Your task to perform on an android device: Add "logitech g pro" to the cart on amazon, then select checkout. Image 0: 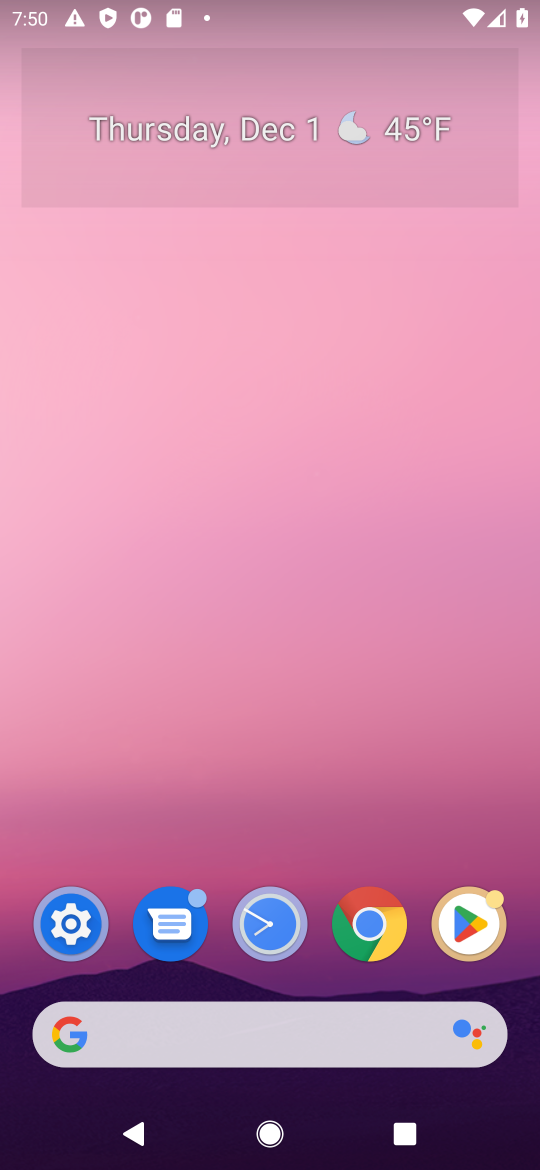
Step 0: click (184, 1041)
Your task to perform on an android device: Add "logitech g pro" to the cart on amazon, then select checkout. Image 1: 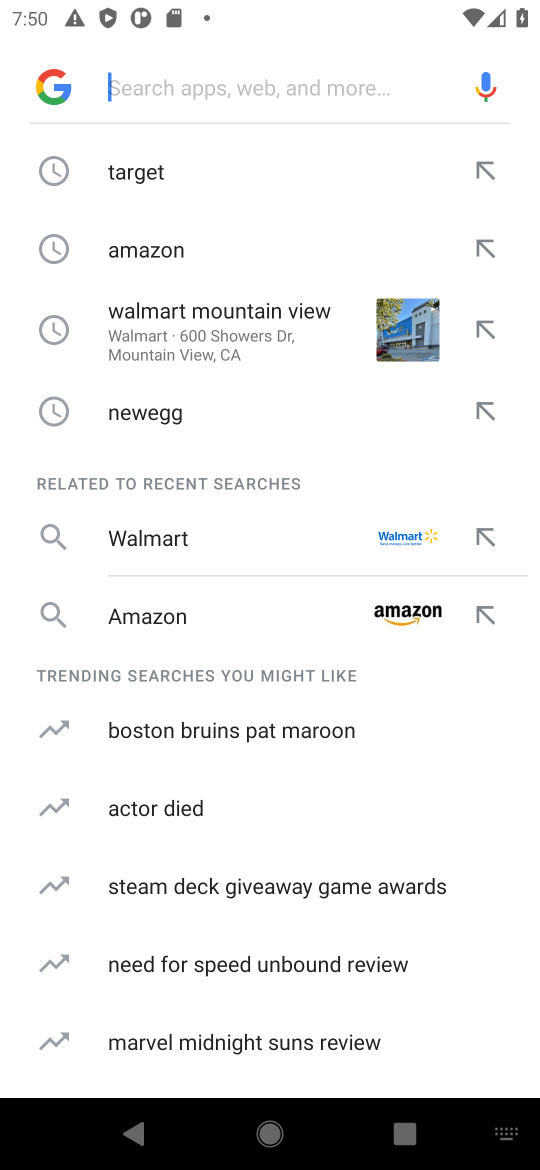
Step 1: type "amazon"
Your task to perform on an android device: Add "logitech g pro" to the cart on amazon, then select checkout. Image 2: 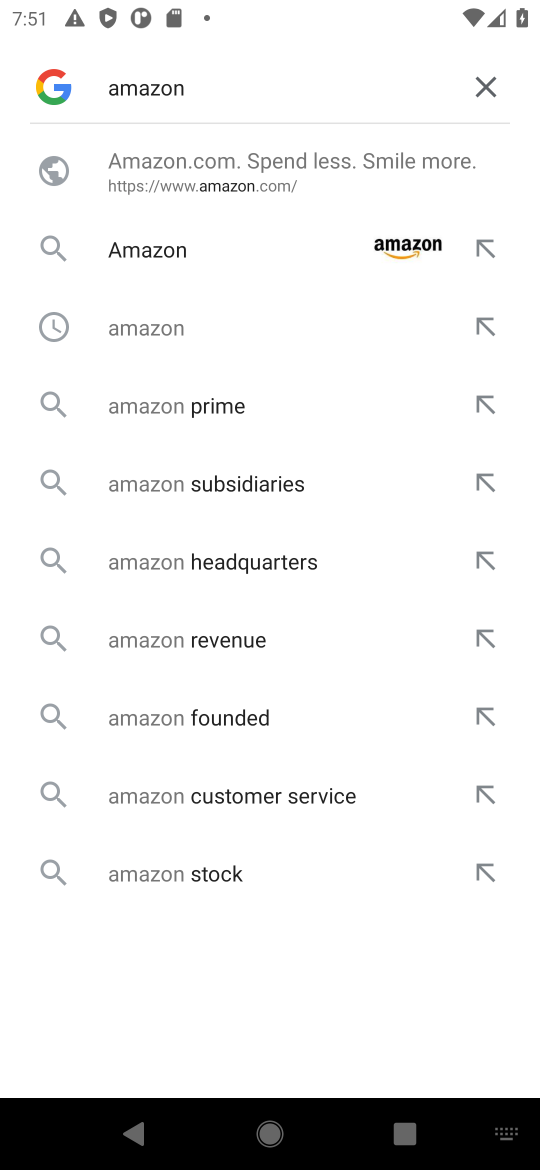
Step 2: click (314, 182)
Your task to perform on an android device: Add "logitech g pro" to the cart on amazon, then select checkout. Image 3: 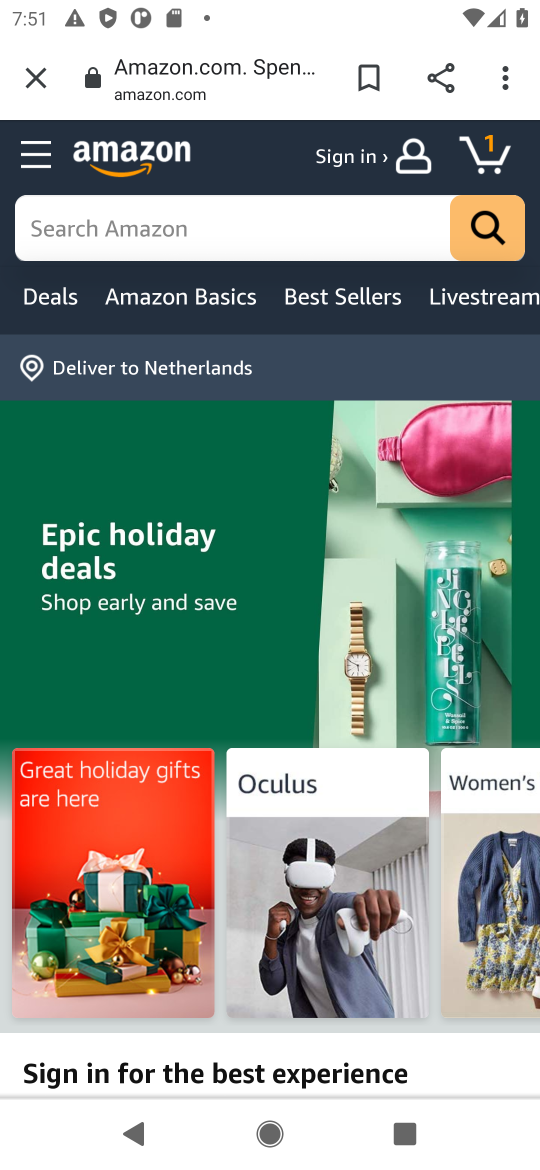
Step 3: click (336, 211)
Your task to perform on an android device: Add "logitech g pro" to the cart on amazon, then select checkout. Image 4: 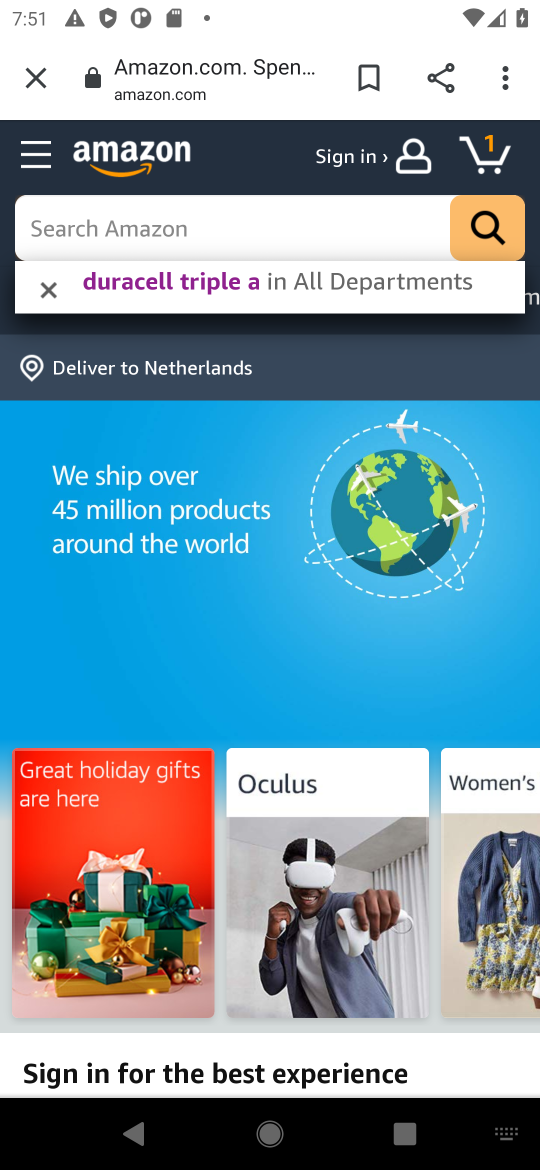
Step 4: type "logitech g pro"
Your task to perform on an android device: Add "logitech g pro" to the cart on amazon, then select checkout. Image 5: 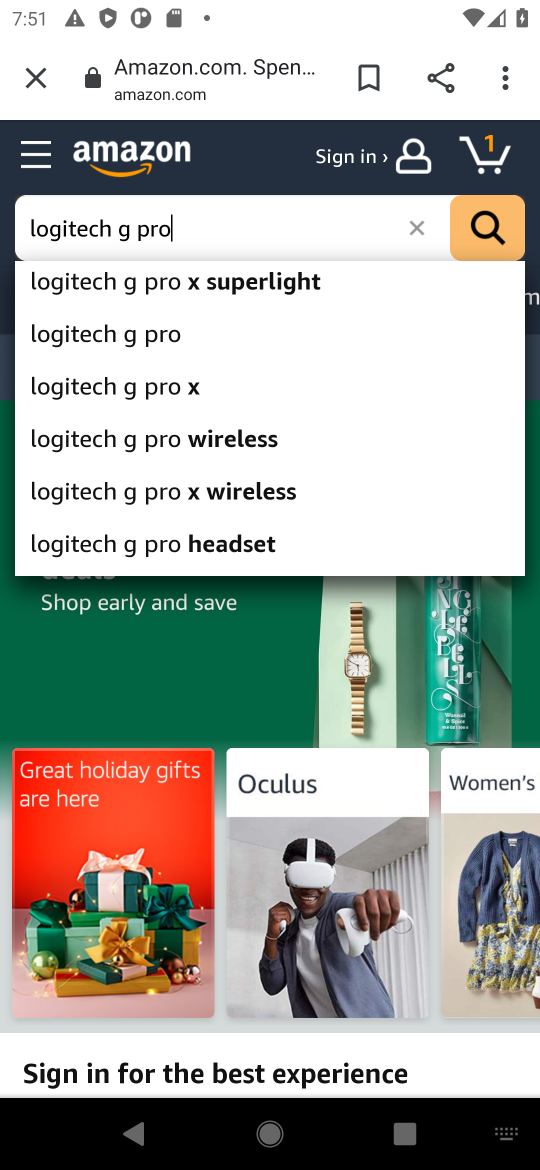
Step 5: click (131, 354)
Your task to perform on an android device: Add "logitech g pro" to the cart on amazon, then select checkout. Image 6: 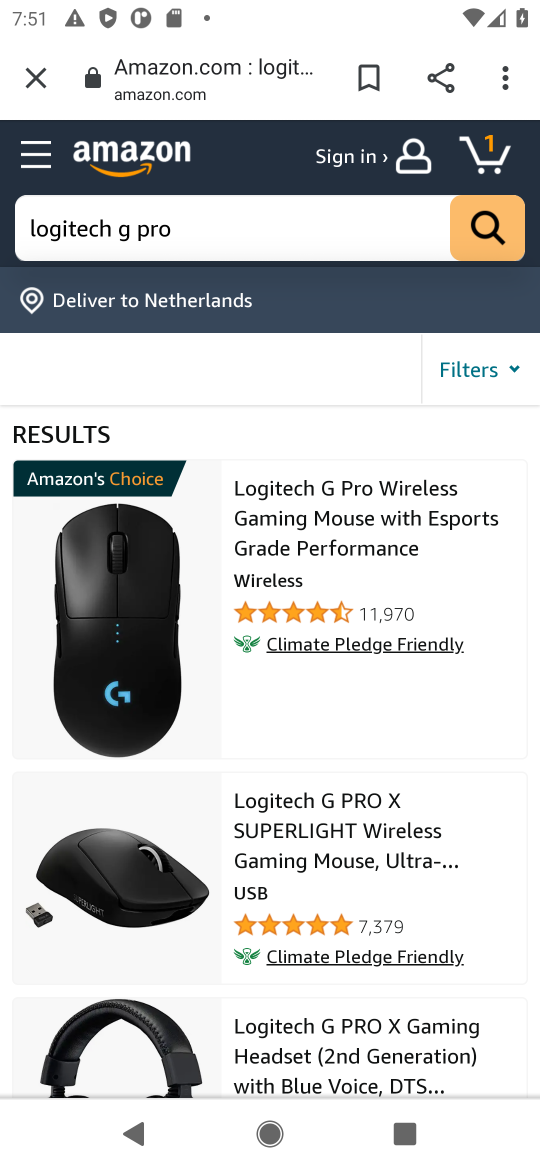
Step 6: click (310, 554)
Your task to perform on an android device: Add "logitech g pro" to the cart on amazon, then select checkout. Image 7: 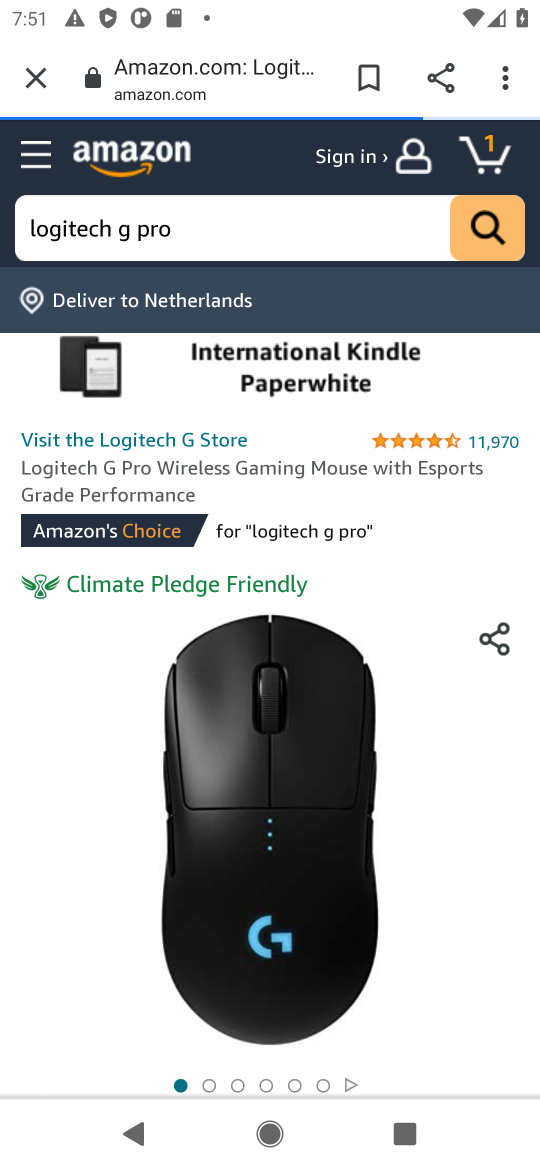
Step 7: drag from (288, 994) to (370, 326)
Your task to perform on an android device: Add "logitech g pro" to the cart on amazon, then select checkout. Image 8: 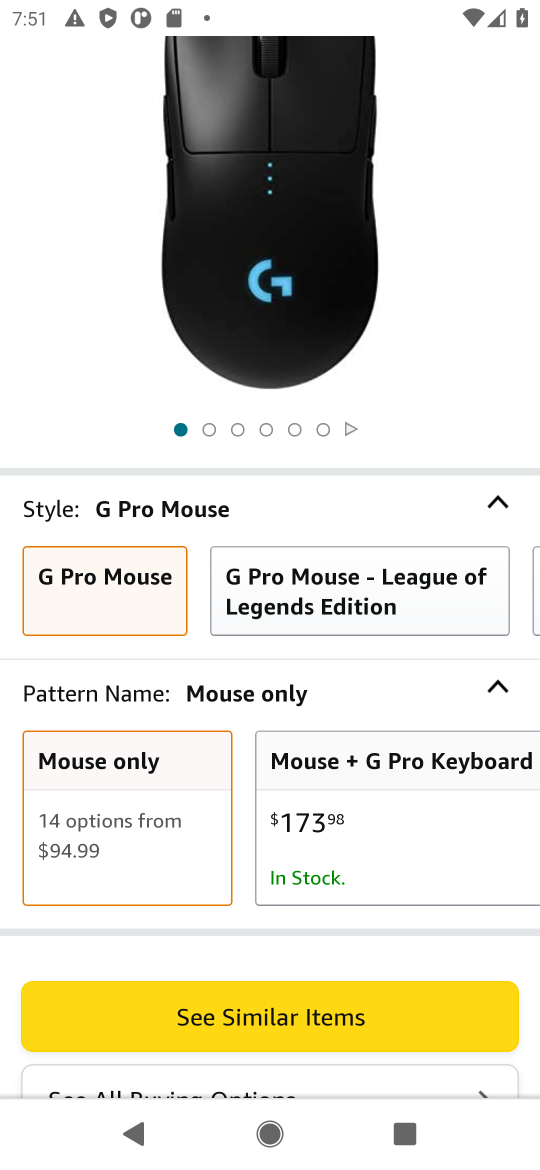
Step 8: click (221, 1021)
Your task to perform on an android device: Add "logitech g pro" to the cart on amazon, then select checkout. Image 9: 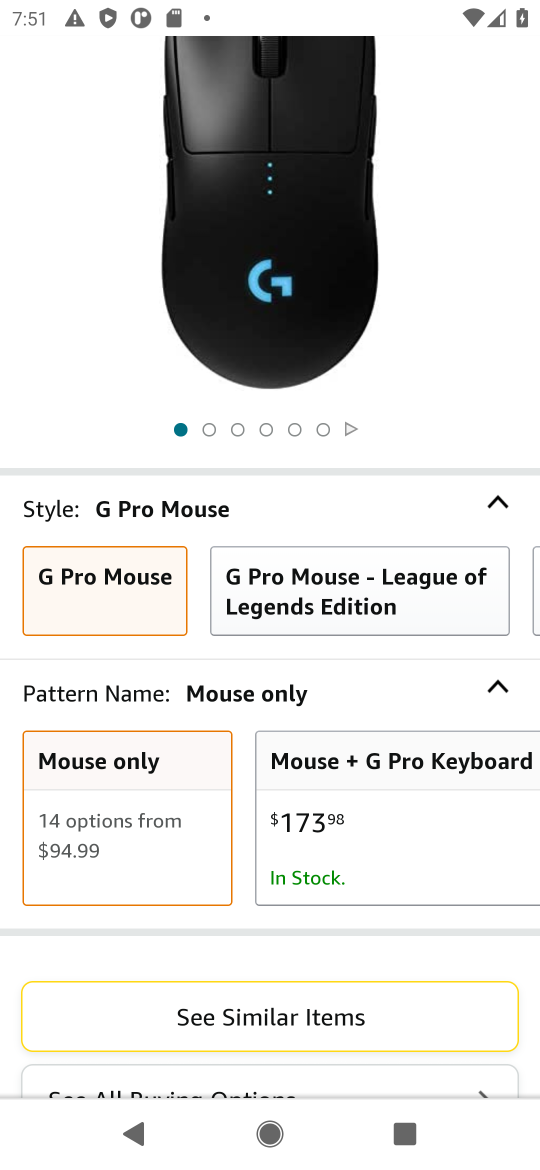
Step 9: task complete